Your task to perform on an android device: Is it going to rain today? Image 0: 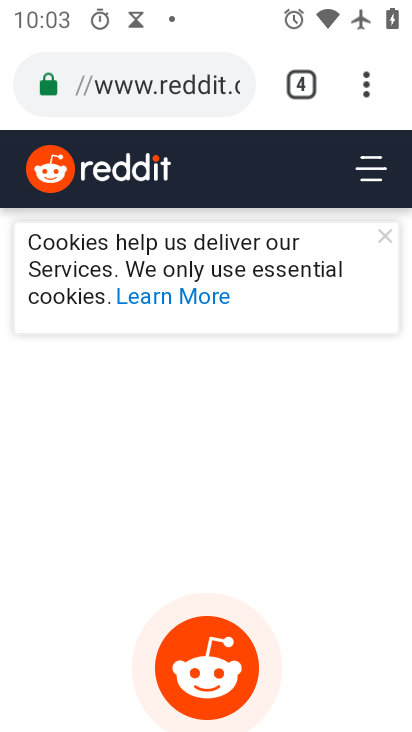
Step 0: press home button
Your task to perform on an android device: Is it going to rain today? Image 1: 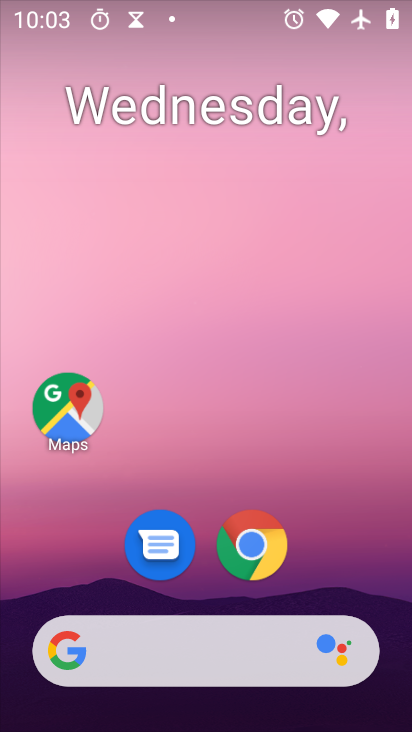
Step 1: click (76, 661)
Your task to perform on an android device: Is it going to rain today? Image 2: 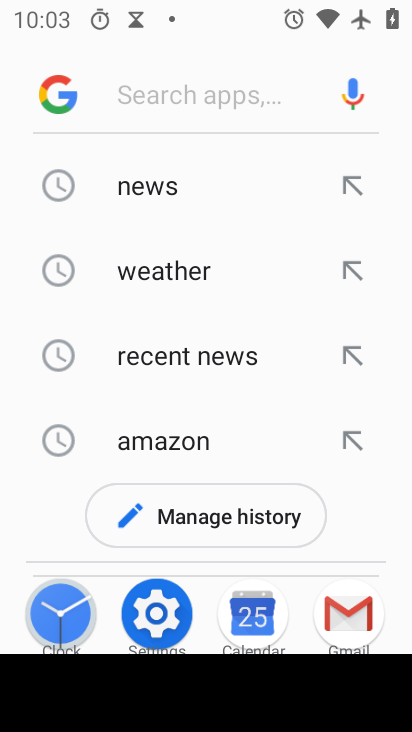
Step 2: click (181, 274)
Your task to perform on an android device: Is it going to rain today? Image 3: 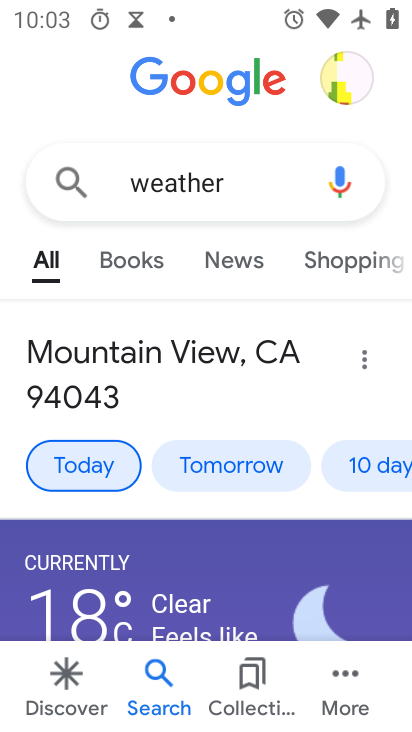
Step 3: task complete